Your task to perform on an android device: Open the web browser Image 0: 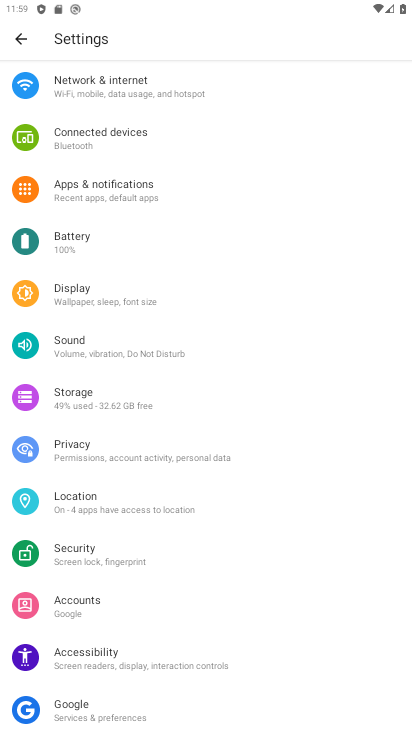
Step 0: press home button
Your task to perform on an android device: Open the web browser Image 1: 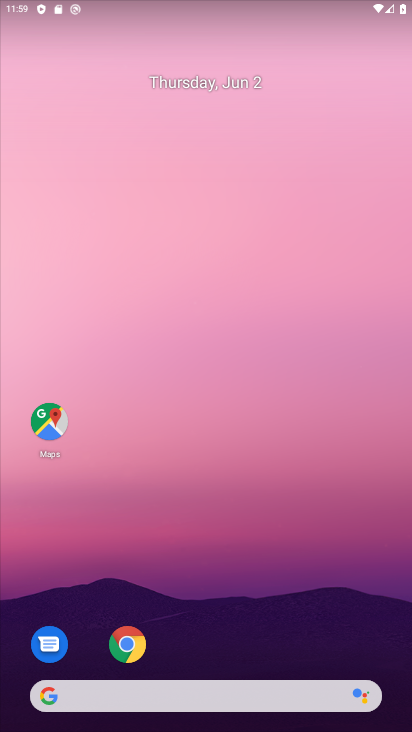
Step 1: click (129, 642)
Your task to perform on an android device: Open the web browser Image 2: 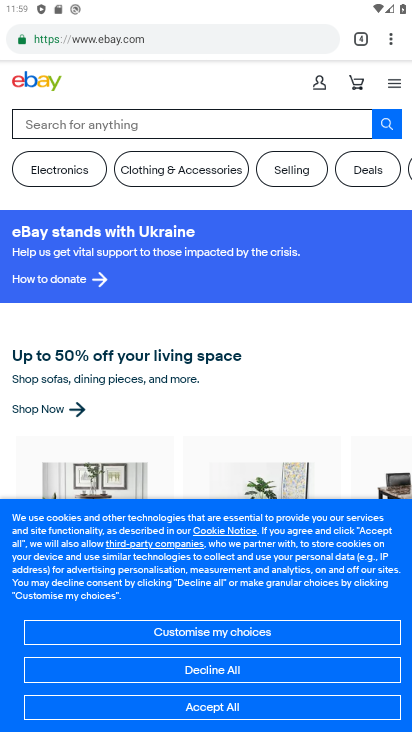
Step 2: task complete